Your task to perform on an android device: Open battery settings Image 0: 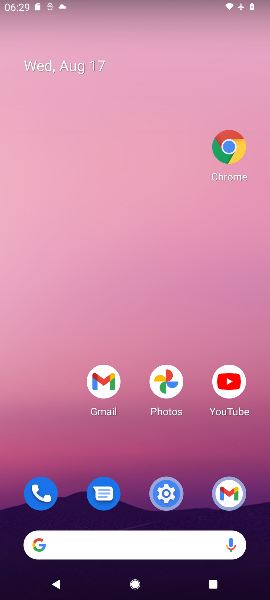
Step 0: press home button
Your task to perform on an android device: Open battery settings Image 1: 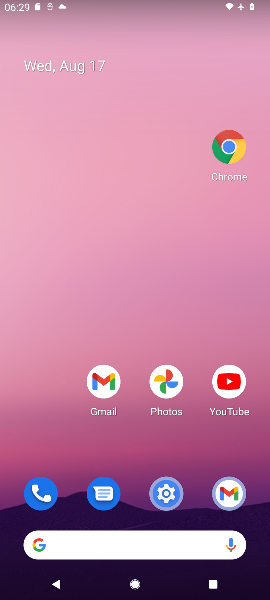
Step 1: click (171, 503)
Your task to perform on an android device: Open battery settings Image 2: 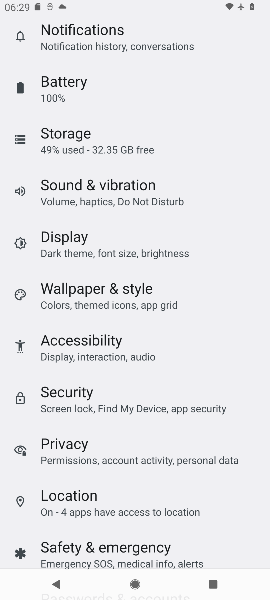
Step 2: click (48, 90)
Your task to perform on an android device: Open battery settings Image 3: 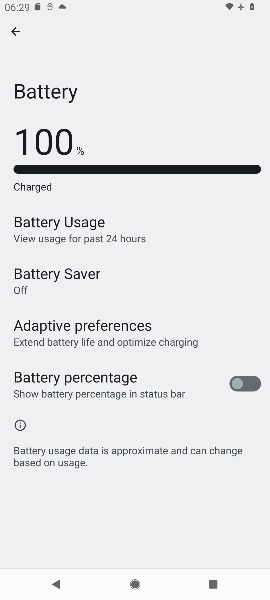
Step 3: task complete